Your task to perform on an android device: turn on javascript in the chrome app Image 0: 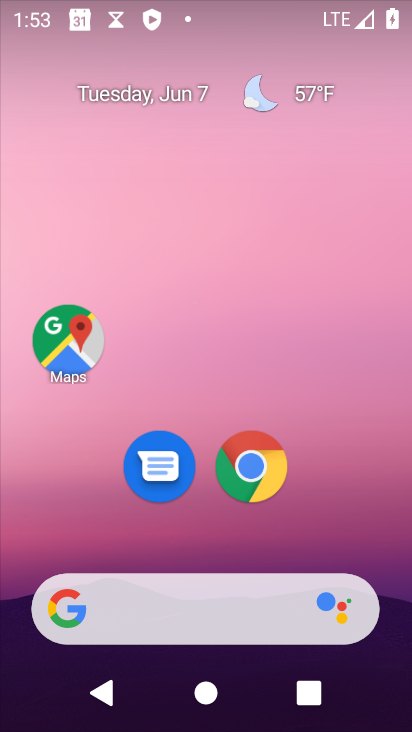
Step 0: click (249, 469)
Your task to perform on an android device: turn on javascript in the chrome app Image 1: 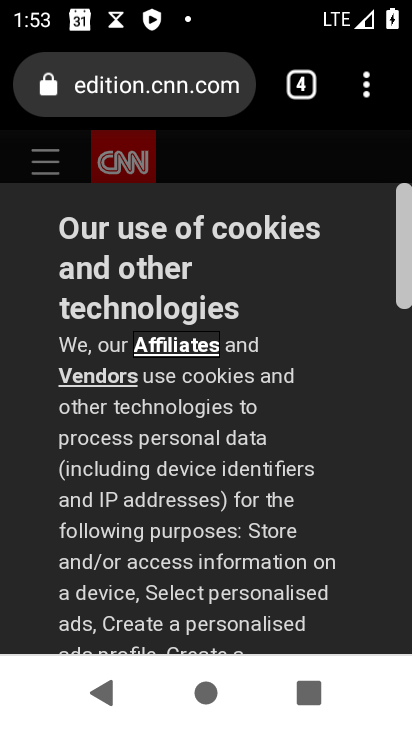
Step 1: drag from (375, 63) to (97, 511)
Your task to perform on an android device: turn on javascript in the chrome app Image 2: 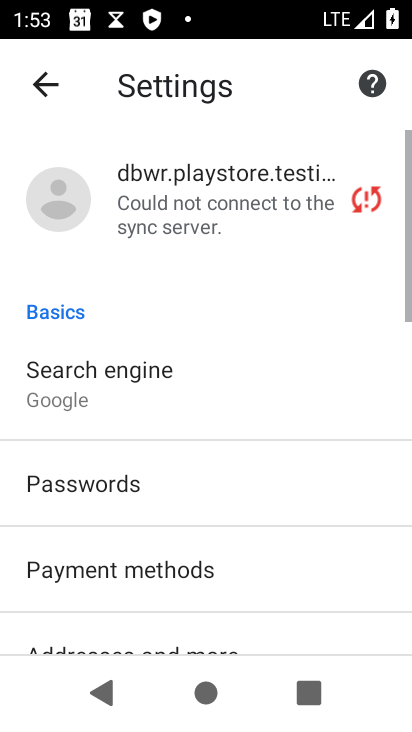
Step 2: drag from (138, 650) to (223, 91)
Your task to perform on an android device: turn on javascript in the chrome app Image 3: 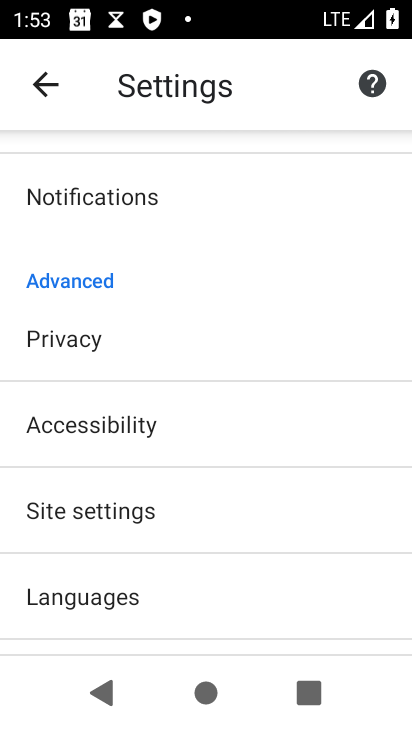
Step 3: click (72, 527)
Your task to perform on an android device: turn on javascript in the chrome app Image 4: 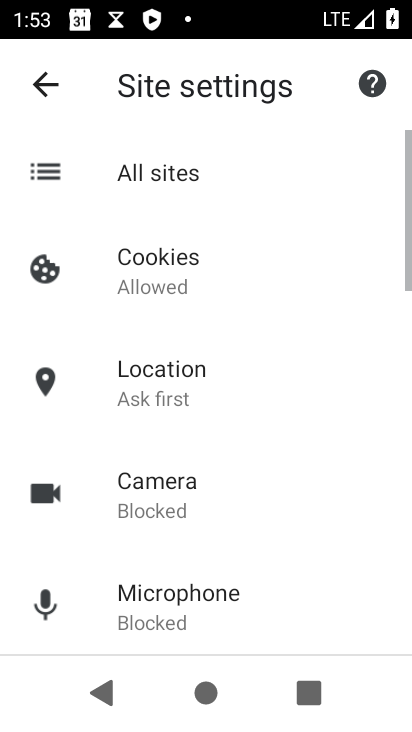
Step 4: drag from (208, 534) to (267, 108)
Your task to perform on an android device: turn on javascript in the chrome app Image 5: 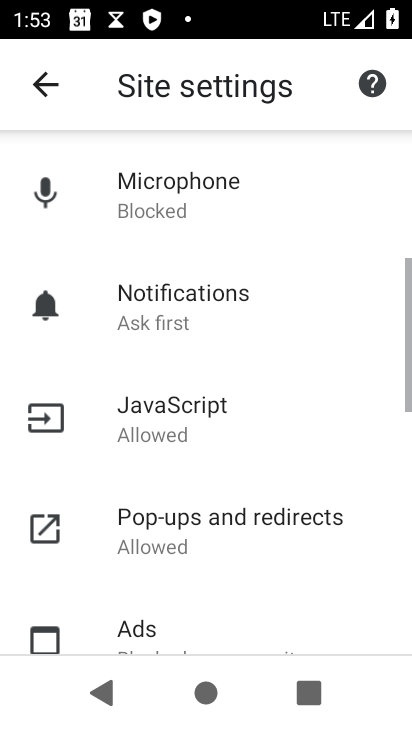
Step 5: click (163, 415)
Your task to perform on an android device: turn on javascript in the chrome app Image 6: 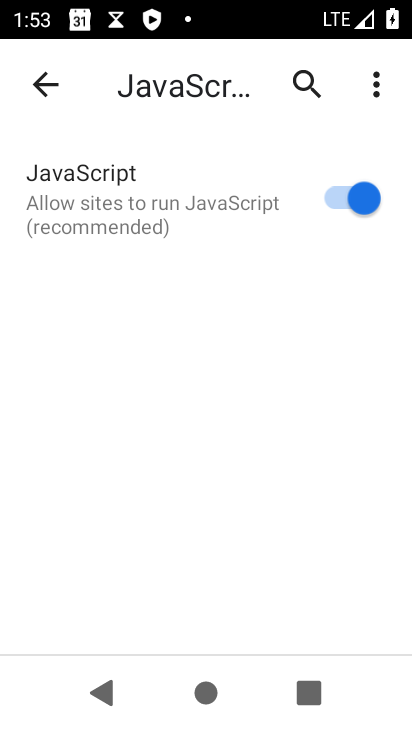
Step 6: task complete